Your task to perform on an android device: Go to privacy settings Image 0: 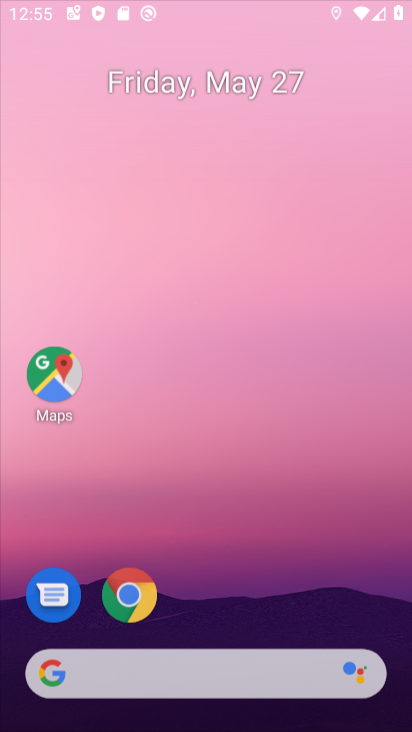
Step 0: drag from (277, 557) to (223, 65)
Your task to perform on an android device: Go to privacy settings Image 1: 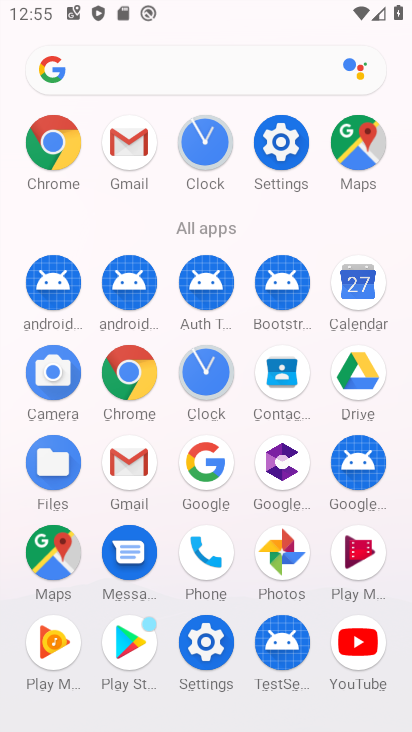
Step 1: click (283, 145)
Your task to perform on an android device: Go to privacy settings Image 2: 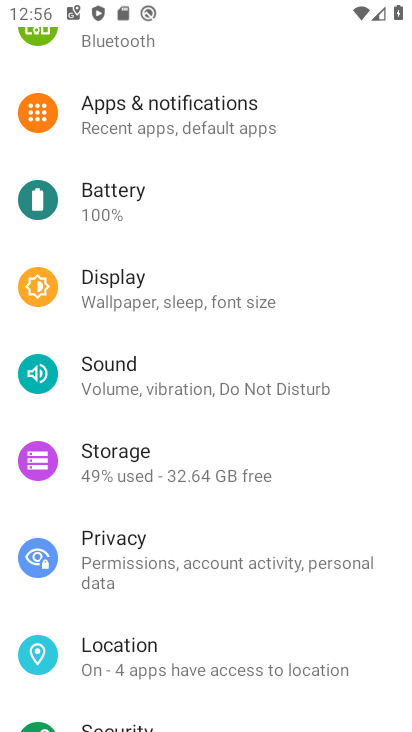
Step 2: click (122, 565)
Your task to perform on an android device: Go to privacy settings Image 3: 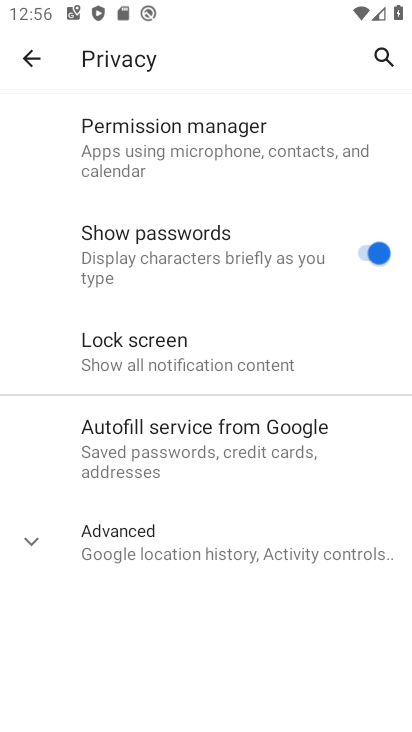
Step 3: task complete